Your task to perform on an android device: What's the weather going to be tomorrow? Image 0: 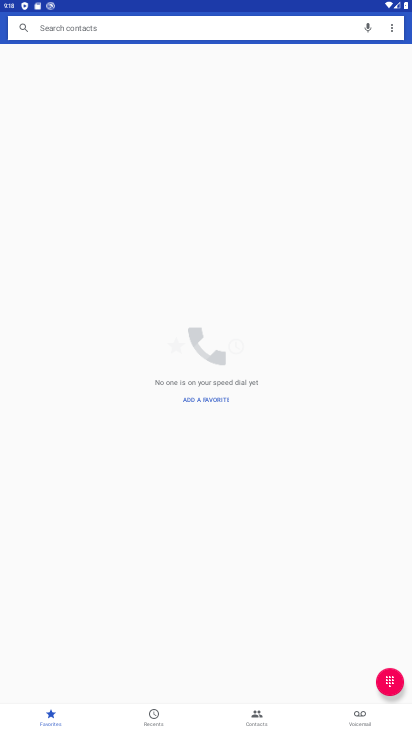
Step 0: press home button
Your task to perform on an android device: What's the weather going to be tomorrow? Image 1: 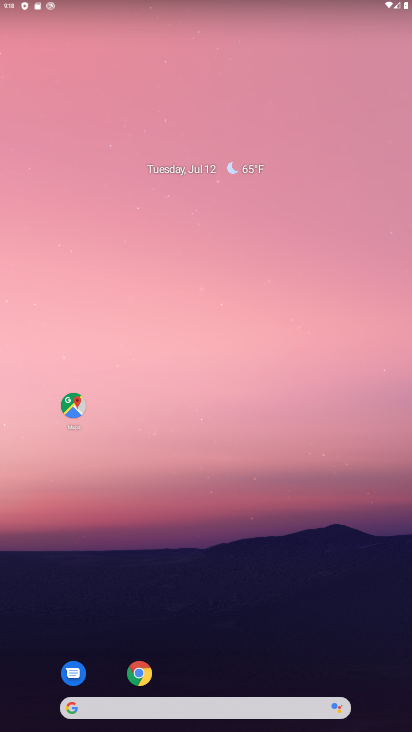
Step 1: click (208, 708)
Your task to perform on an android device: What's the weather going to be tomorrow? Image 2: 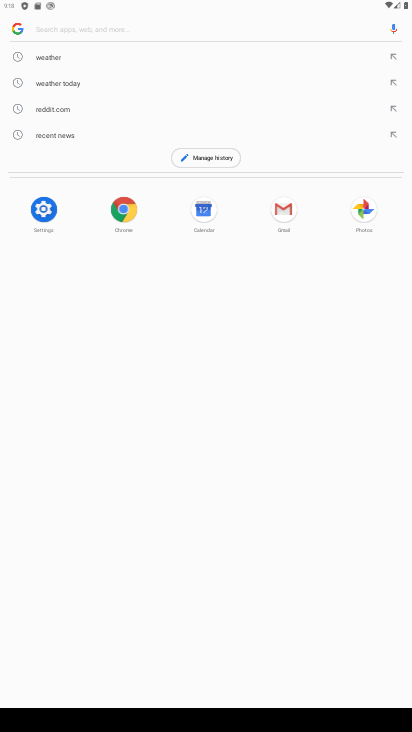
Step 2: type "weather"
Your task to perform on an android device: What's the weather going to be tomorrow? Image 3: 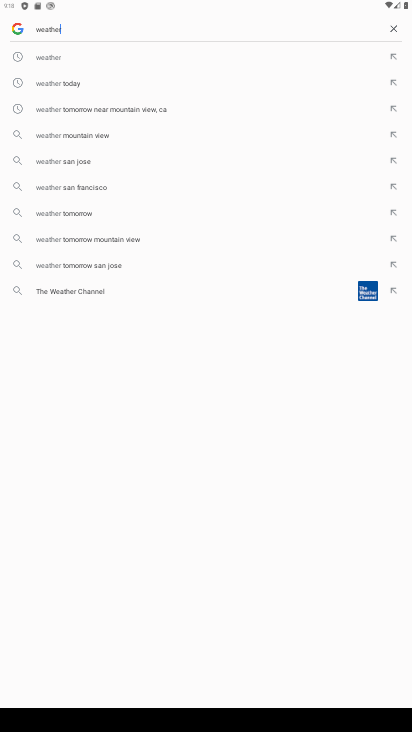
Step 3: click (65, 56)
Your task to perform on an android device: What's the weather going to be tomorrow? Image 4: 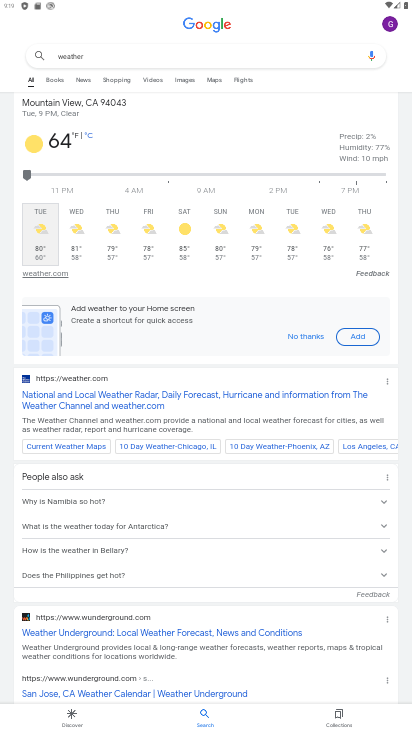
Step 4: click (111, 206)
Your task to perform on an android device: What's the weather going to be tomorrow? Image 5: 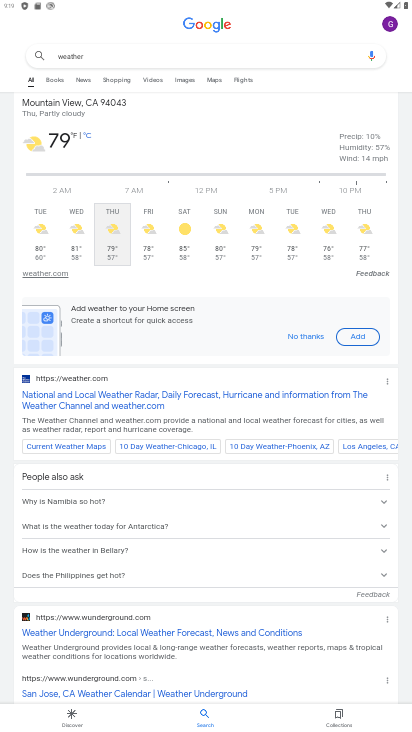
Step 5: task complete